Your task to perform on an android device: turn on sleep mode Image 0: 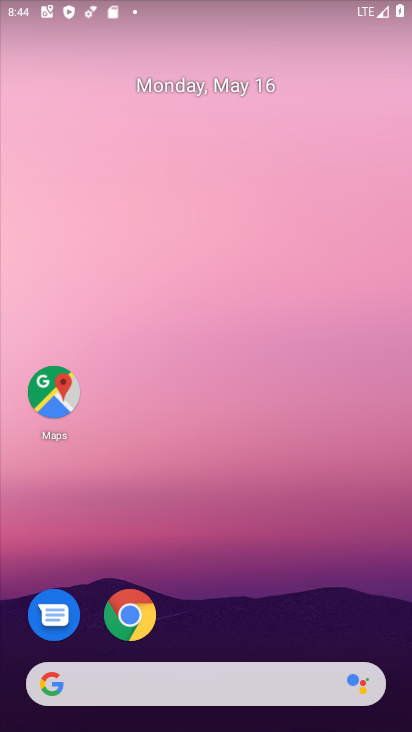
Step 0: drag from (182, 607) to (212, 315)
Your task to perform on an android device: turn on sleep mode Image 1: 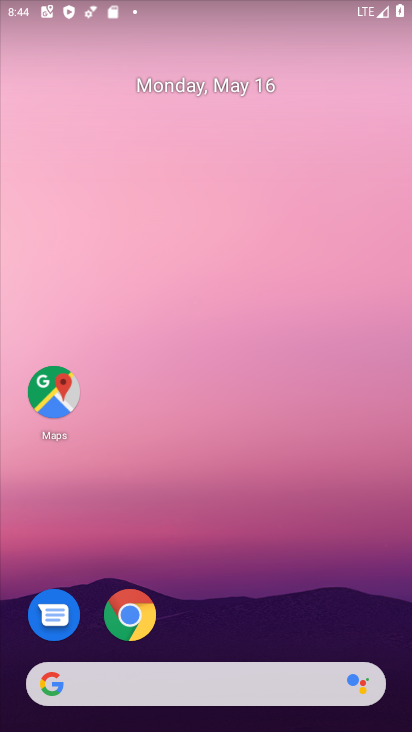
Step 1: drag from (230, 694) to (154, 144)
Your task to perform on an android device: turn on sleep mode Image 2: 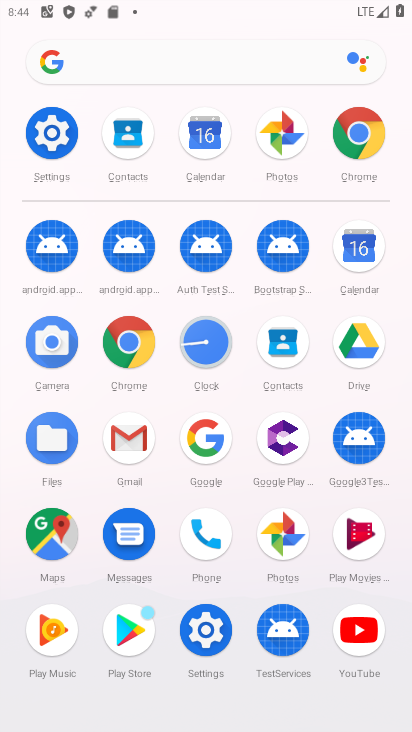
Step 2: click (66, 140)
Your task to perform on an android device: turn on sleep mode Image 3: 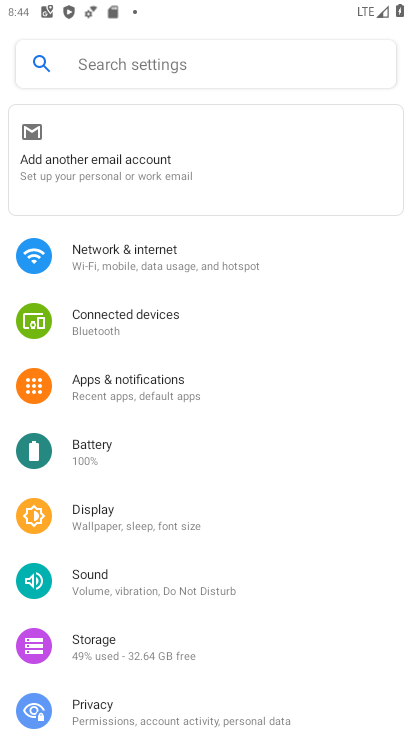
Step 3: click (122, 513)
Your task to perform on an android device: turn on sleep mode Image 4: 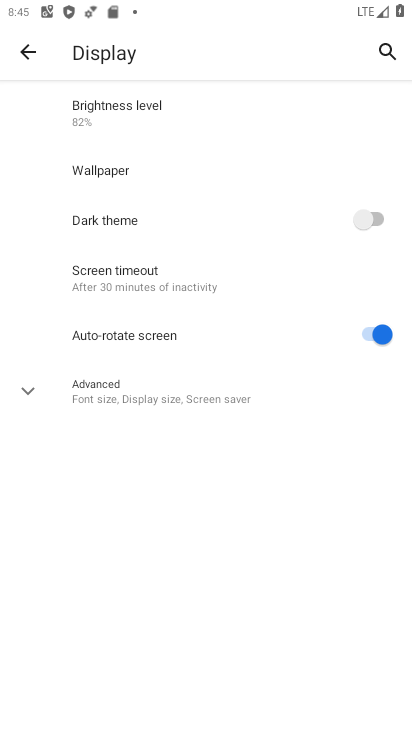
Step 4: click (157, 420)
Your task to perform on an android device: turn on sleep mode Image 5: 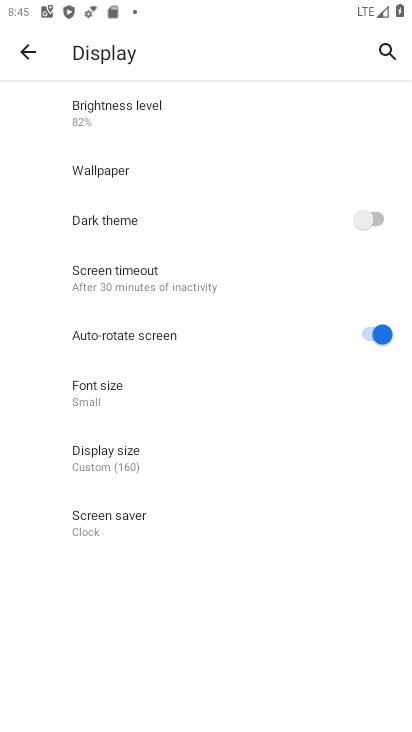
Step 5: task complete